Your task to perform on an android device: See recent photos Image 0: 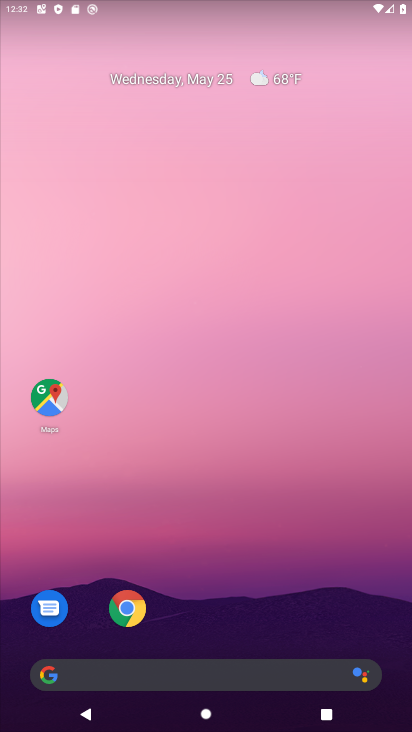
Step 0: drag from (299, 599) to (273, 155)
Your task to perform on an android device: See recent photos Image 1: 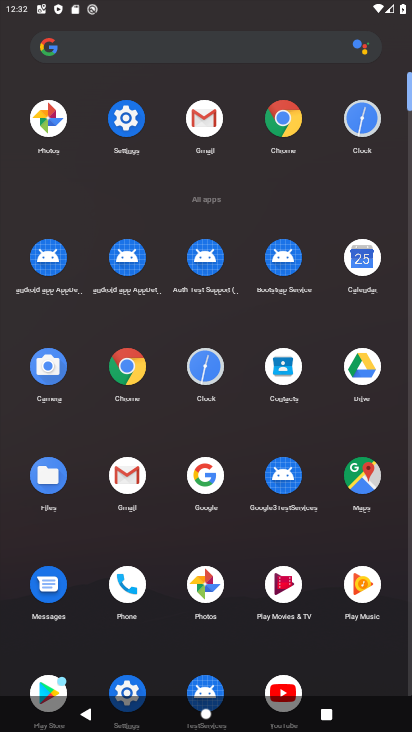
Step 1: click (215, 588)
Your task to perform on an android device: See recent photos Image 2: 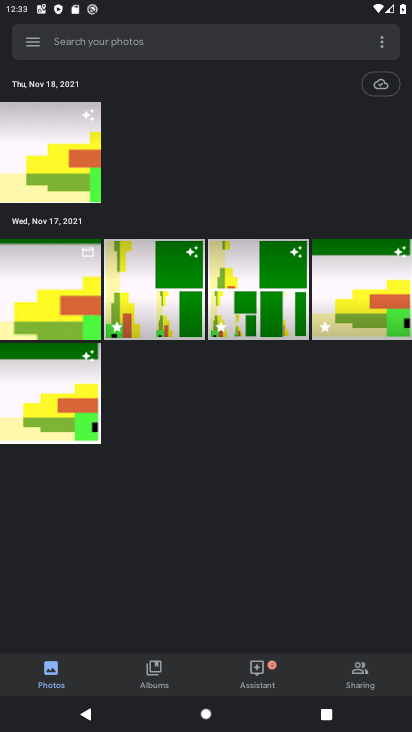
Step 2: task complete